Your task to perform on an android device: Open Google Image 0: 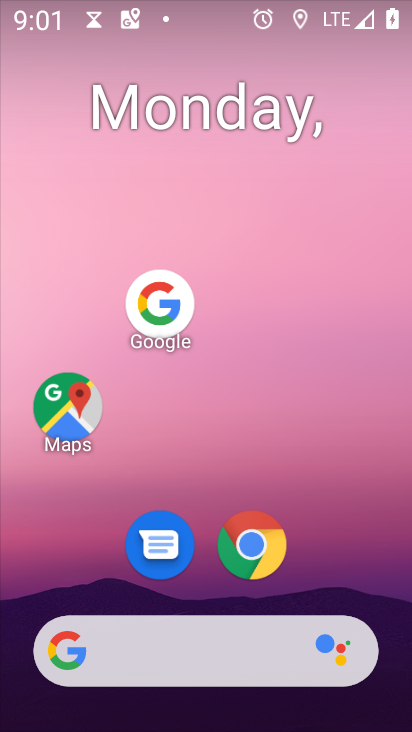
Step 0: press home button
Your task to perform on an android device: Open Google Image 1: 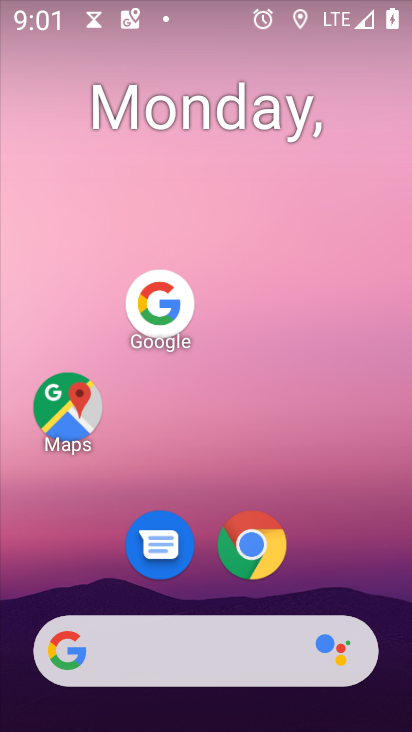
Step 1: drag from (143, 647) to (304, 93)
Your task to perform on an android device: Open Google Image 2: 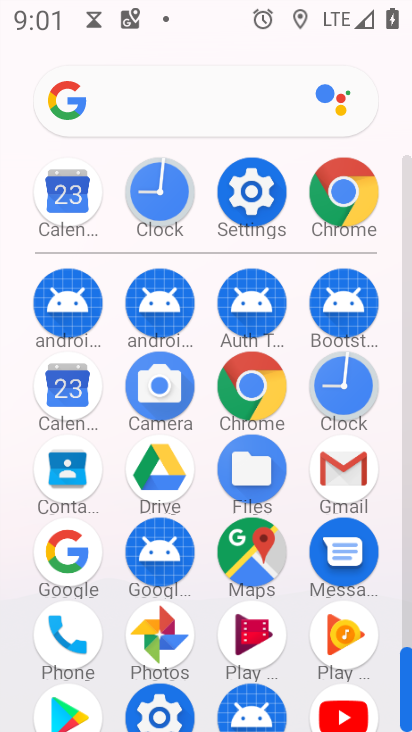
Step 2: click (77, 557)
Your task to perform on an android device: Open Google Image 3: 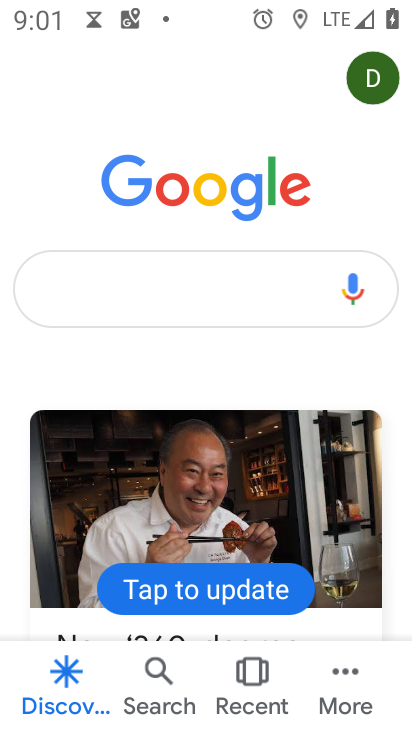
Step 3: task complete